Your task to perform on an android device: Turn off the flashlight Image 0: 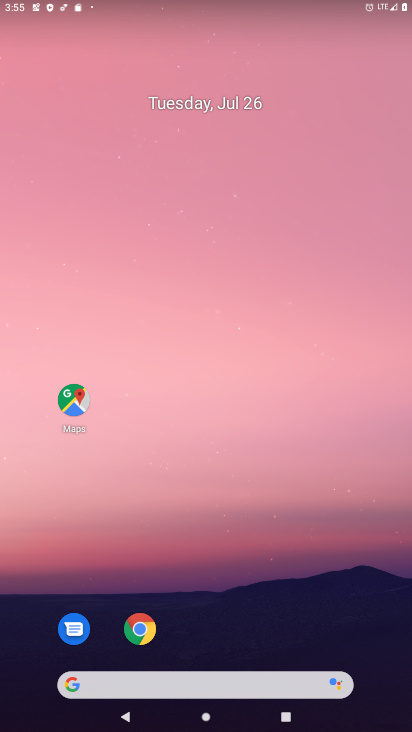
Step 0: click (233, 711)
Your task to perform on an android device: Turn off the flashlight Image 1: 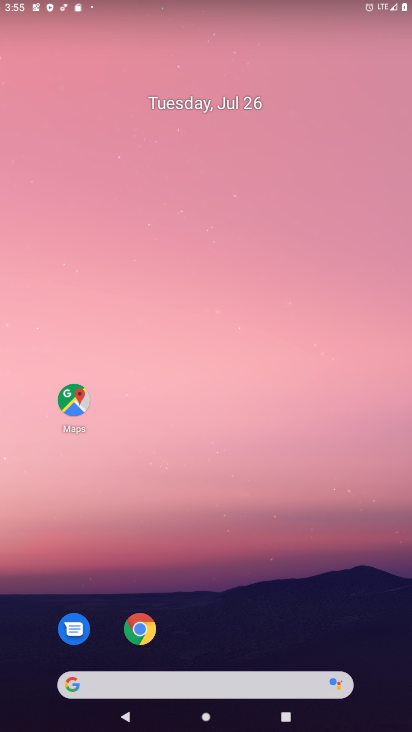
Step 1: drag from (204, 402) to (194, 193)
Your task to perform on an android device: Turn off the flashlight Image 2: 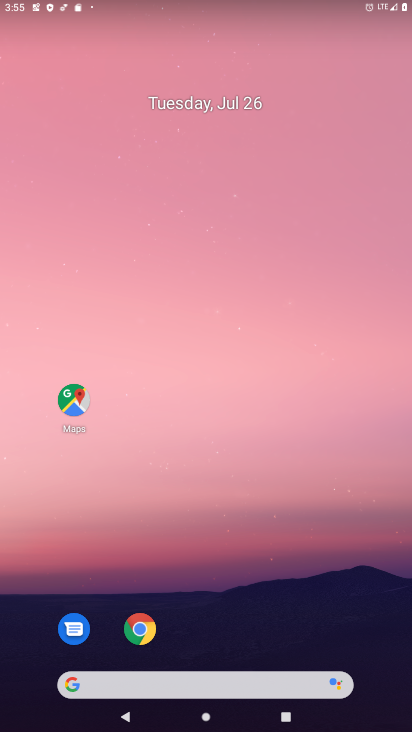
Step 2: drag from (229, 704) to (222, 95)
Your task to perform on an android device: Turn off the flashlight Image 3: 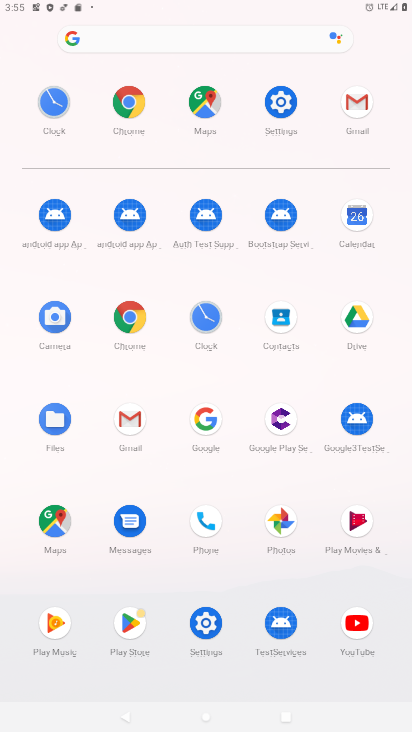
Step 3: click (280, 100)
Your task to perform on an android device: Turn off the flashlight Image 4: 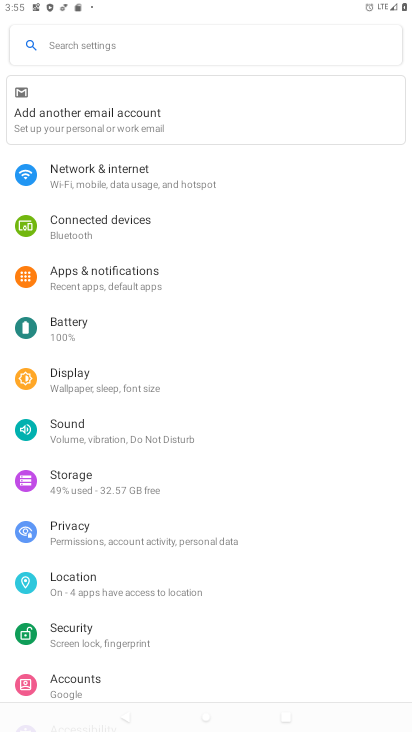
Step 4: task complete